Your task to perform on an android device: Search for sushi restaurants on Maps Image 0: 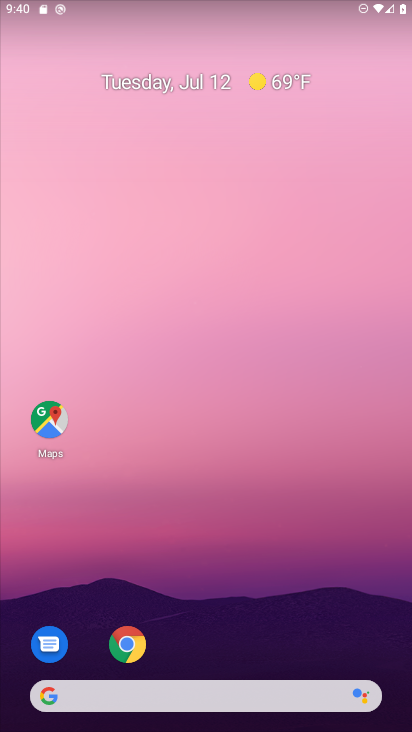
Step 0: press home button
Your task to perform on an android device: Search for sushi restaurants on Maps Image 1: 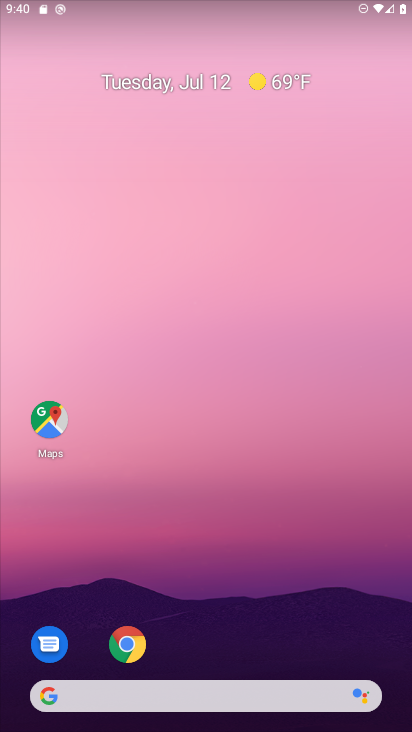
Step 1: click (46, 417)
Your task to perform on an android device: Search for sushi restaurants on Maps Image 2: 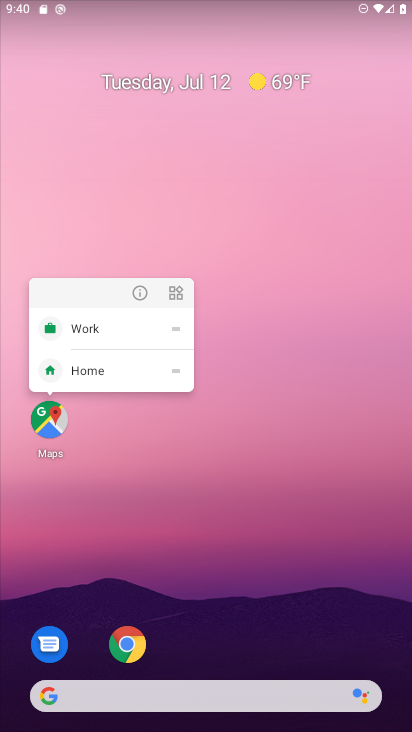
Step 2: click (50, 413)
Your task to perform on an android device: Search for sushi restaurants on Maps Image 3: 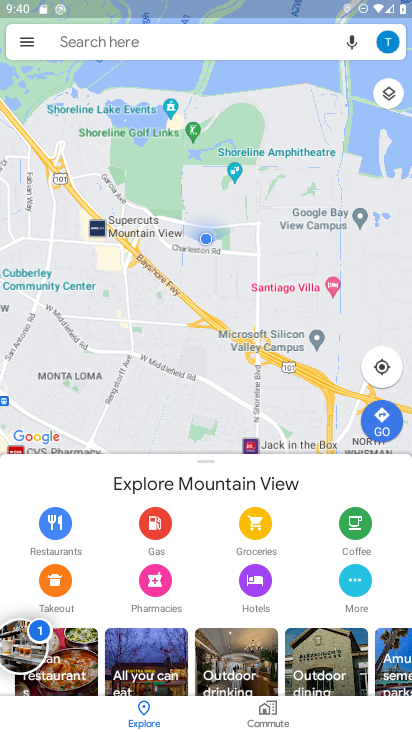
Step 3: click (111, 39)
Your task to perform on an android device: Search for sushi restaurants on Maps Image 4: 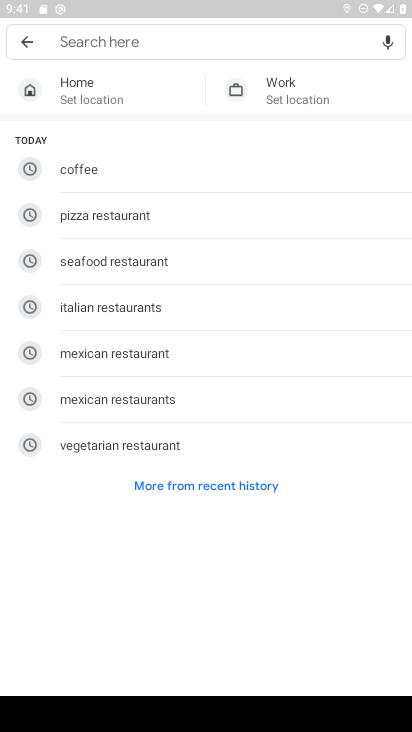
Step 4: type "sushi"
Your task to perform on an android device: Search for sushi restaurants on Maps Image 5: 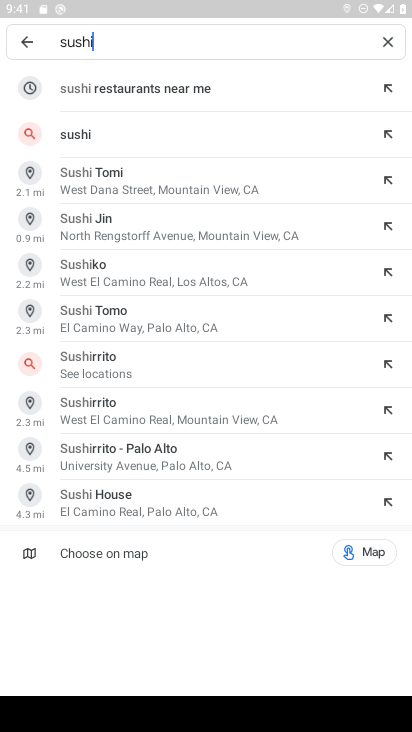
Step 5: click (133, 89)
Your task to perform on an android device: Search for sushi restaurants on Maps Image 6: 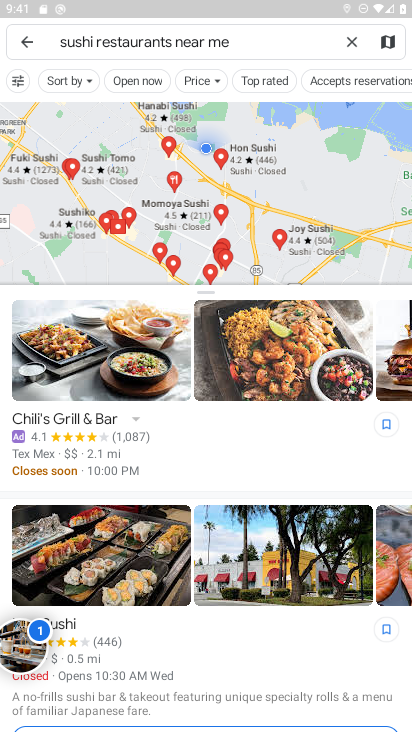
Step 6: task complete